Your task to perform on an android device: check the backup settings in the google photos Image 0: 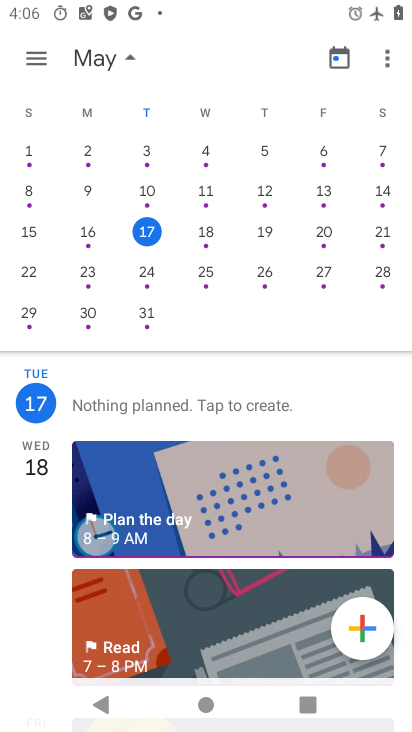
Step 0: press home button
Your task to perform on an android device: check the backup settings in the google photos Image 1: 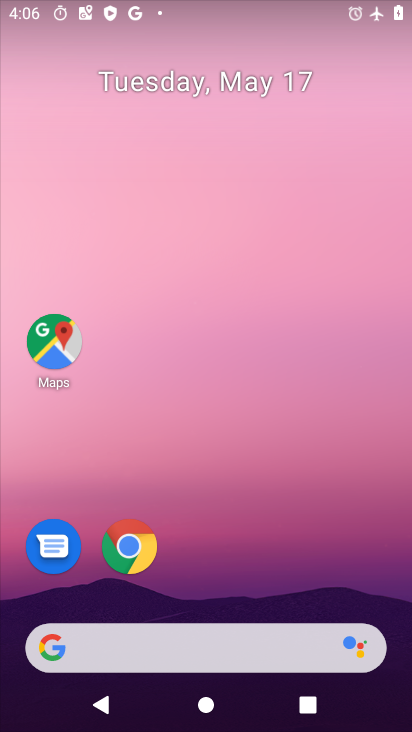
Step 1: drag from (389, 666) to (348, 400)
Your task to perform on an android device: check the backup settings in the google photos Image 2: 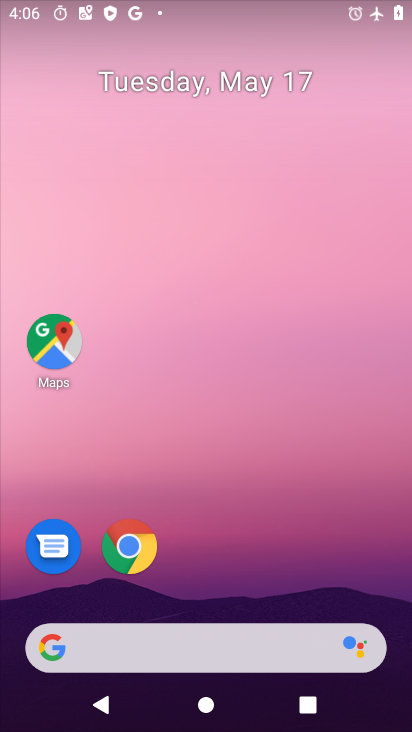
Step 2: drag from (366, 430) to (342, 289)
Your task to perform on an android device: check the backup settings in the google photos Image 3: 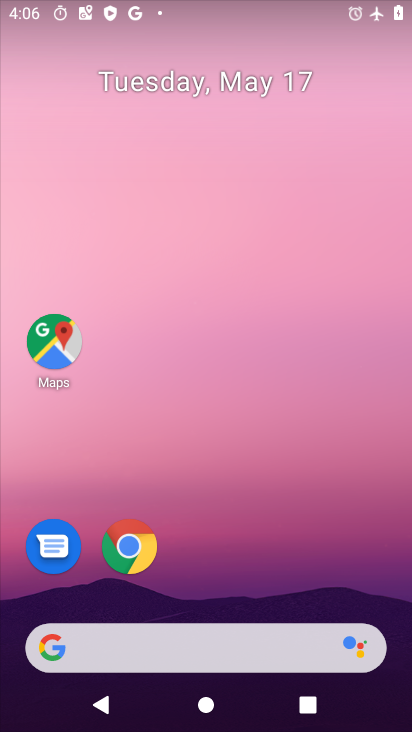
Step 3: drag from (400, 684) to (342, 318)
Your task to perform on an android device: check the backup settings in the google photos Image 4: 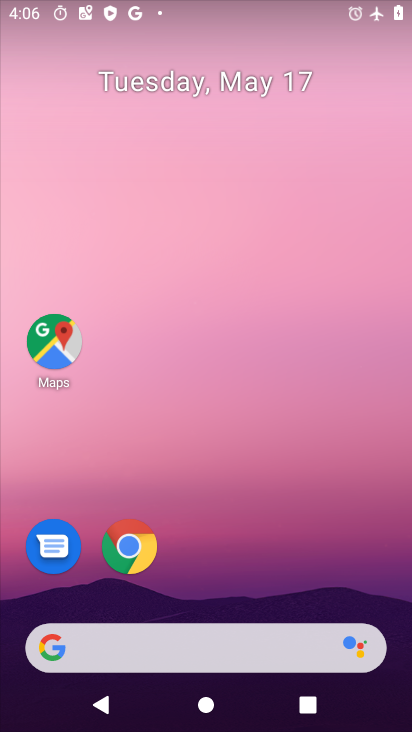
Step 4: drag from (388, 680) to (328, 328)
Your task to perform on an android device: check the backup settings in the google photos Image 5: 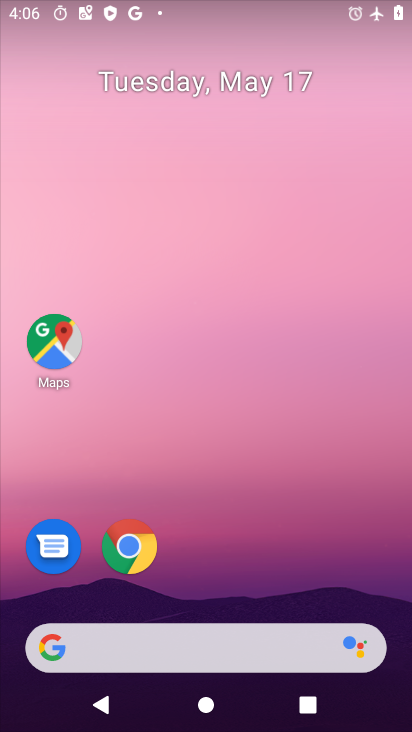
Step 5: drag from (401, 535) to (376, 202)
Your task to perform on an android device: check the backup settings in the google photos Image 6: 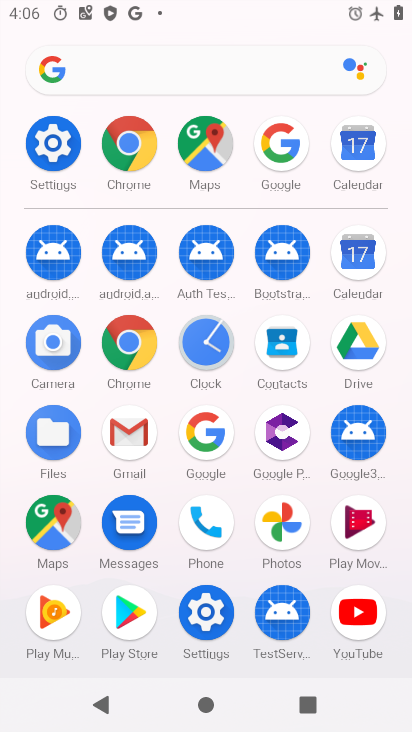
Step 6: click (277, 537)
Your task to perform on an android device: check the backup settings in the google photos Image 7: 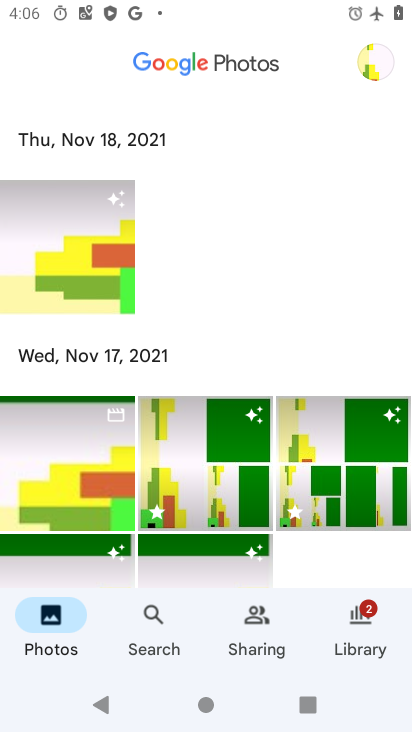
Step 7: click (369, 67)
Your task to perform on an android device: check the backup settings in the google photos Image 8: 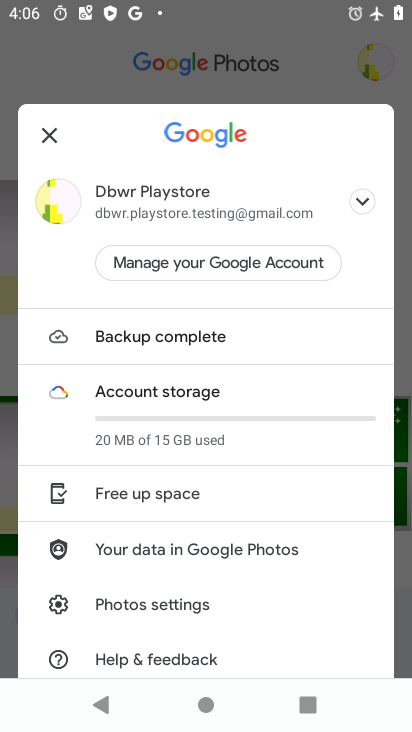
Step 8: click (158, 337)
Your task to perform on an android device: check the backup settings in the google photos Image 9: 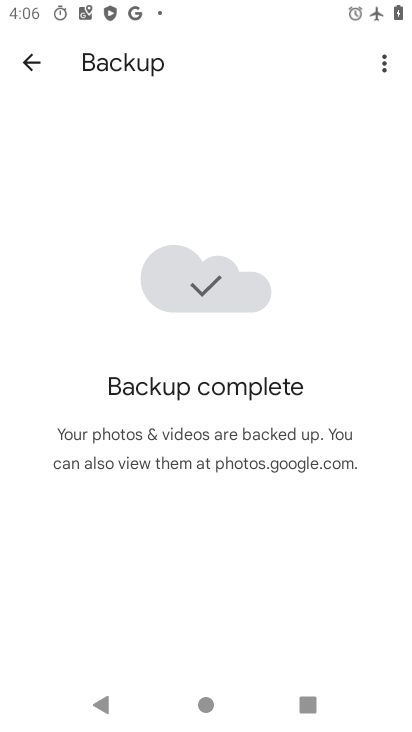
Step 9: task complete